Your task to perform on an android device: turn vacation reply on in the gmail app Image 0: 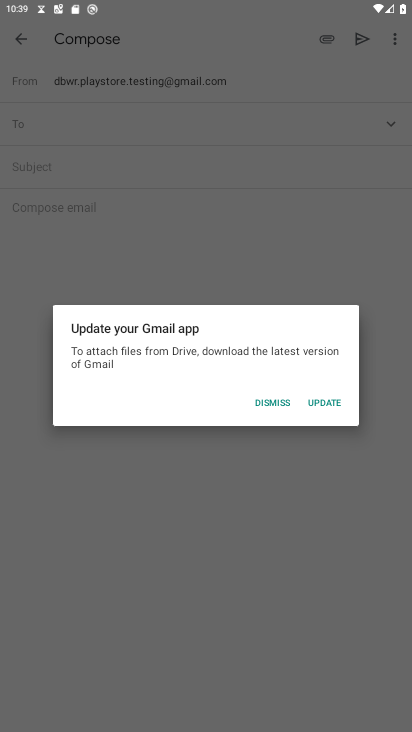
Step 0: press home button
Your task to perform on an android device: turn vacation reply on in the gmail app Image 1: 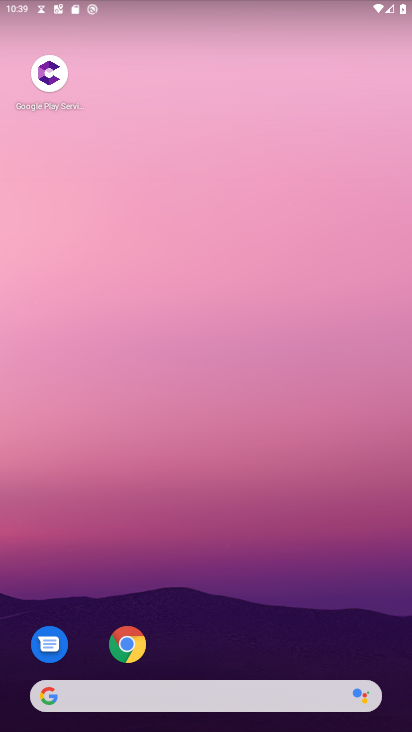
Step 1: press home button
Your task to perform on an android device: turn vacation reply on in the gmail app Image 2: 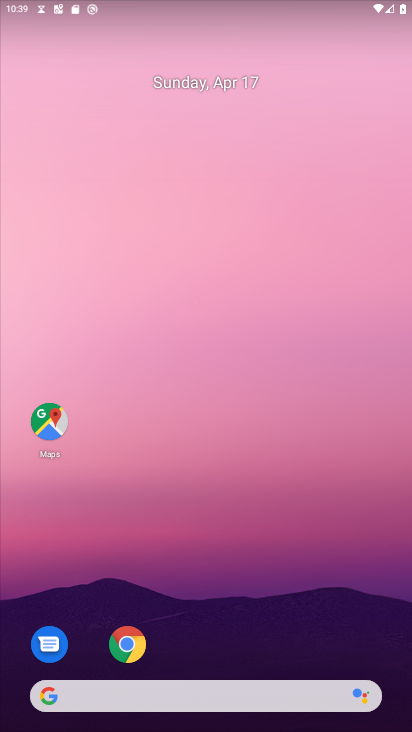
Step 2: drag from (195, 648) to (340, 1)
Your task to perform on an android device: turn vacation reply on in the gmail app Image 3: 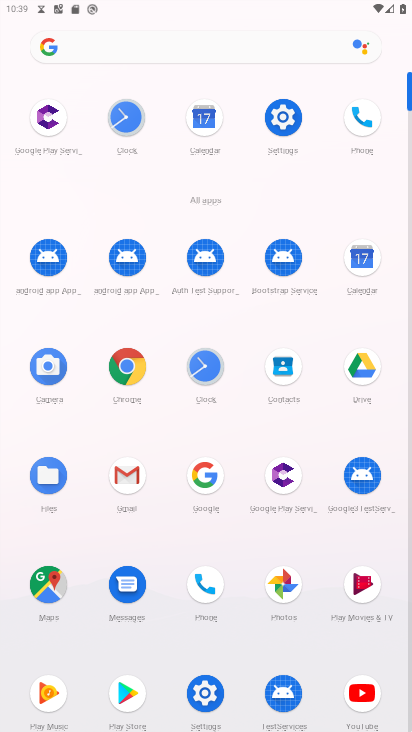
Step 3: click (123, 479)
Your task to perform on an android device: turn vacation reply on in the gmail app Image 4: 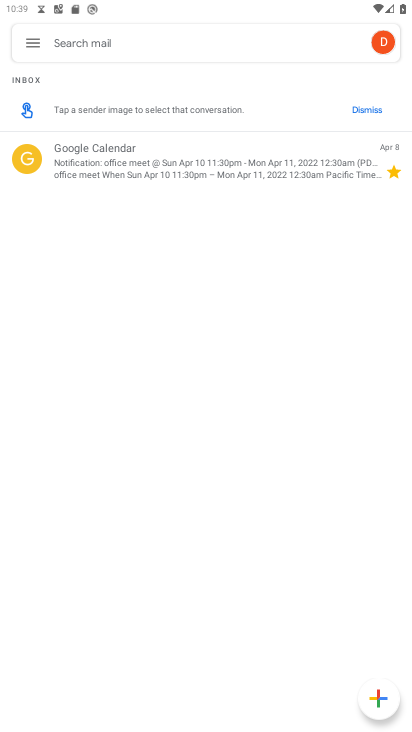
Step 4: click (27, 43)
Your task to perform on an android device: turn vacation reply on in the gmail app Image 5: 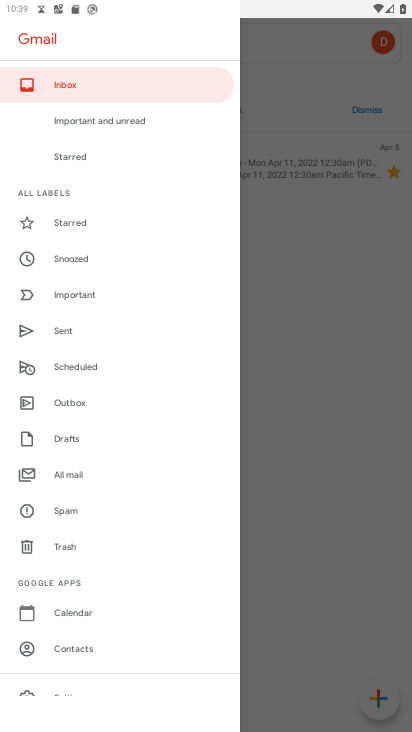
Step 5: drag from (97, 623) to (153, 259)
Your task to perform on an android device: turn vacation reply on in the gmail app Image 6: 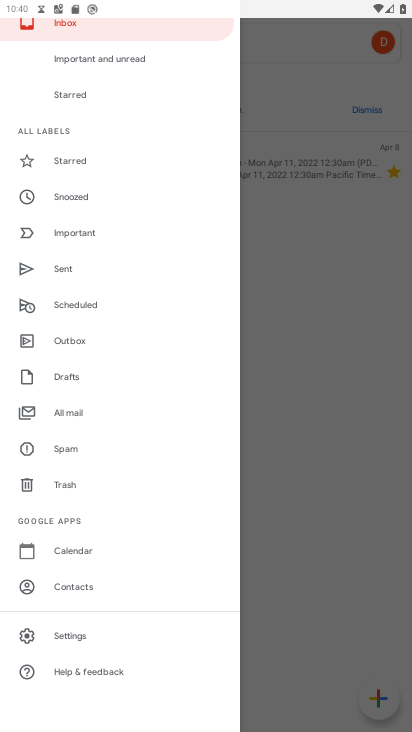
Step 6: click (72, 640)
Your task to perform on an android device: turn vacation reply on in the gmail app Image 7: 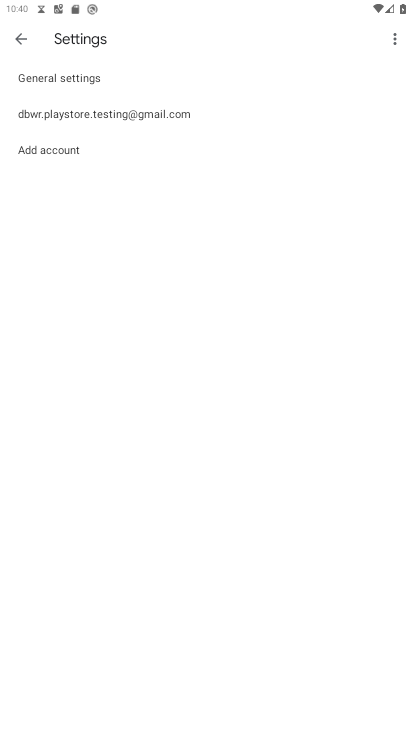
Step 7: click (134, 117)
Your task to perform on an android device: turn vacation reply on in the gmail app Image 8: 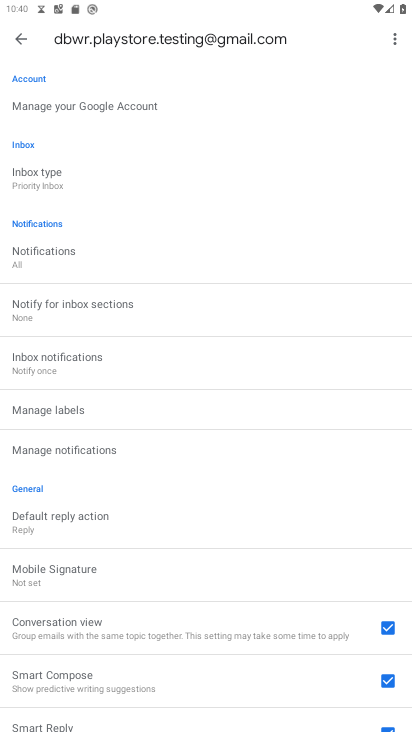
Step 8: drag from (113, 645) to (169, 286)
Your task to perform on an android device: turn vacation reply on in the gmail app Image 9: 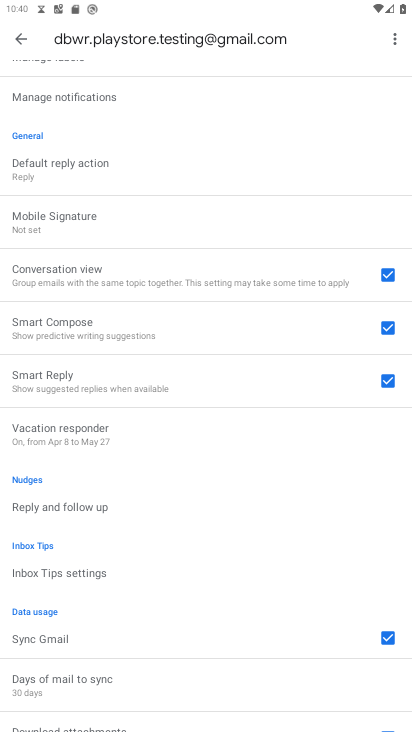
Step 9: click (85, 427)
Your task to perform on an android device: turn vacation reply on in the gmail app Image 10: 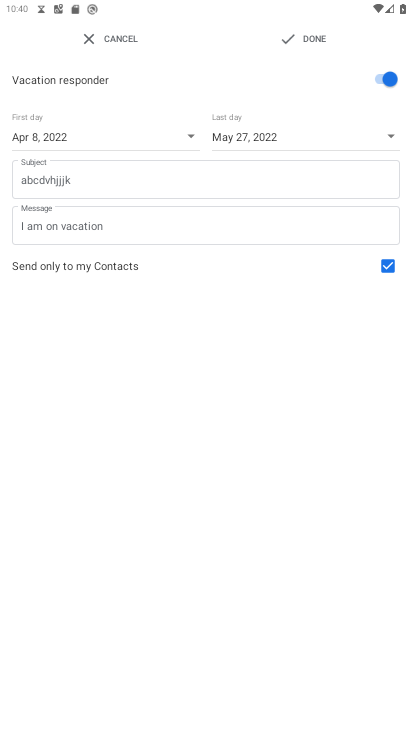
Step 10: task complete